Your task to perform on an android device: How big is a lion? Image 0: 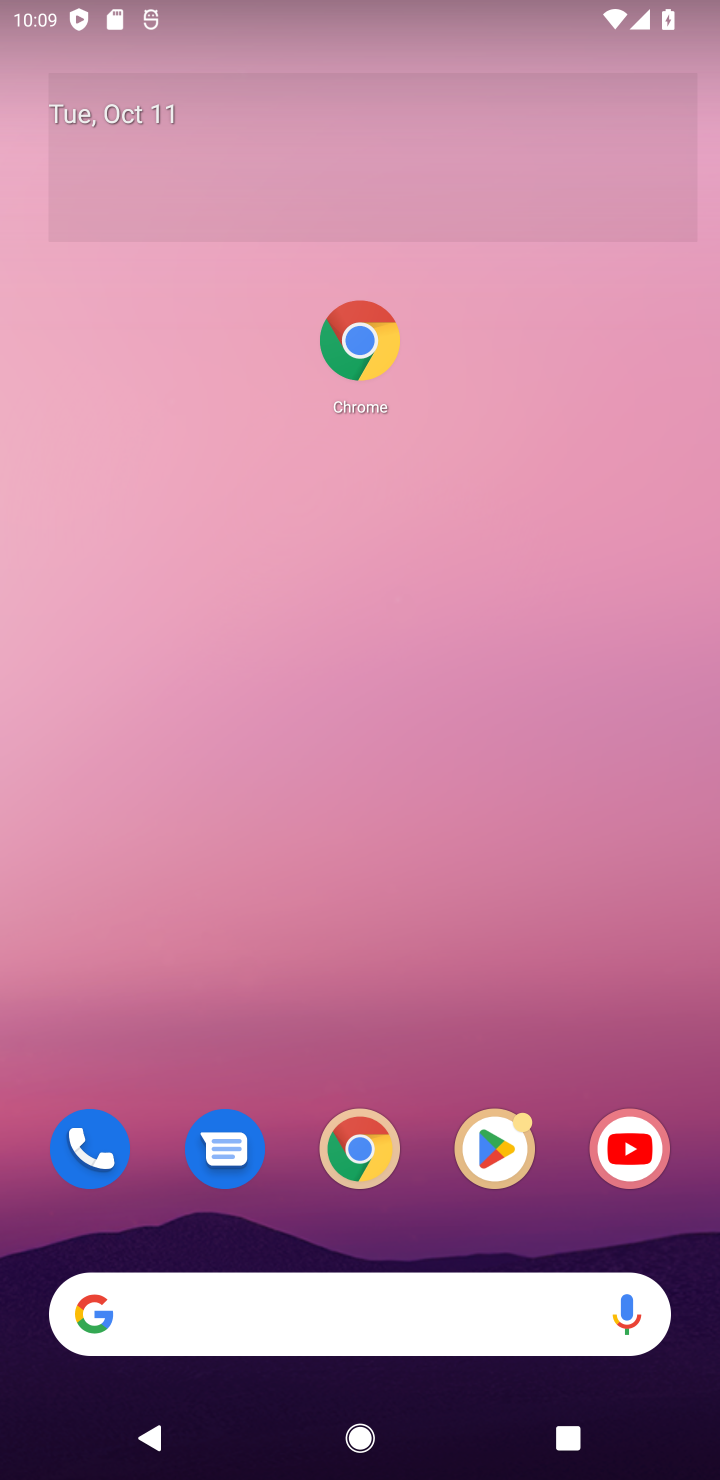
Step 0: drag from (333, 1247) to (40, 15)
Your task to perform on an android device: How big is a lion? Image 1: 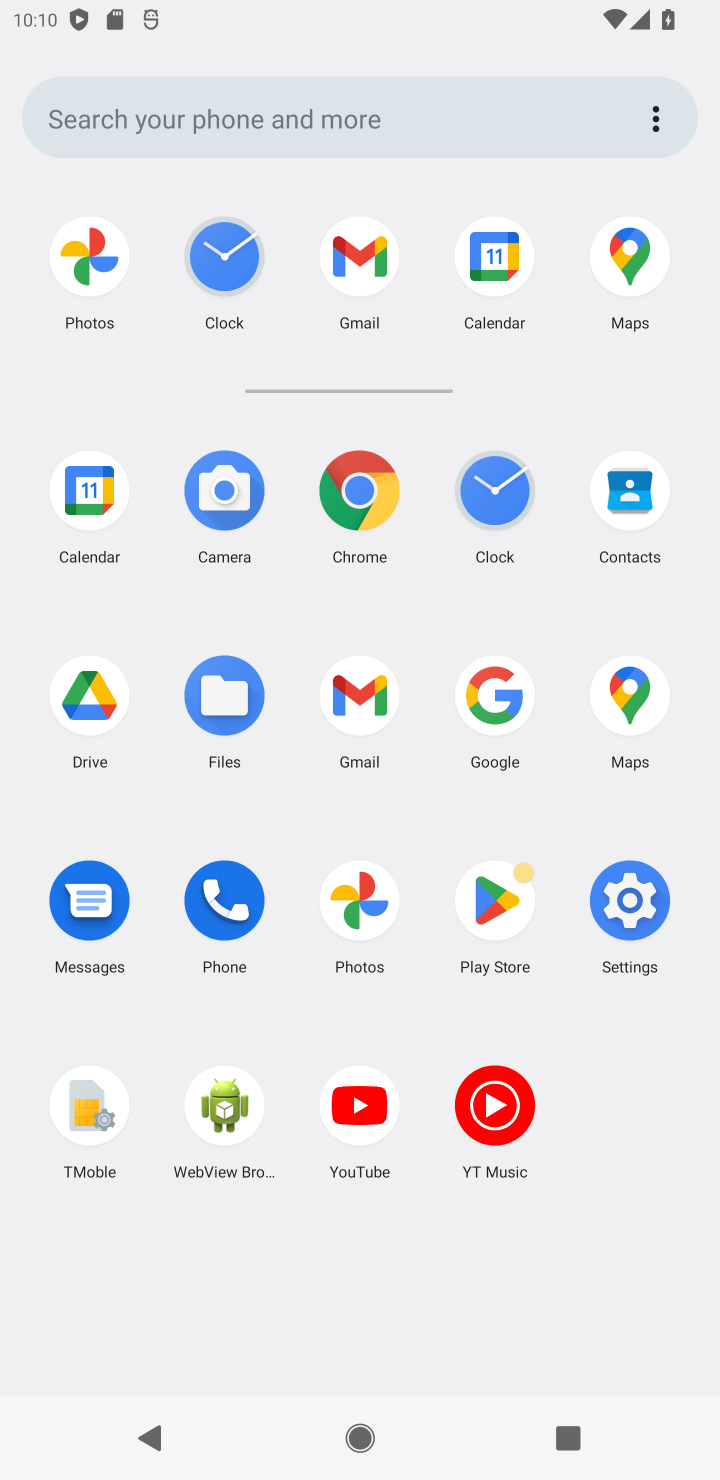
Step 1: click (358, 485)
Your task to perform on an android device: How big is a lion? Image 2: 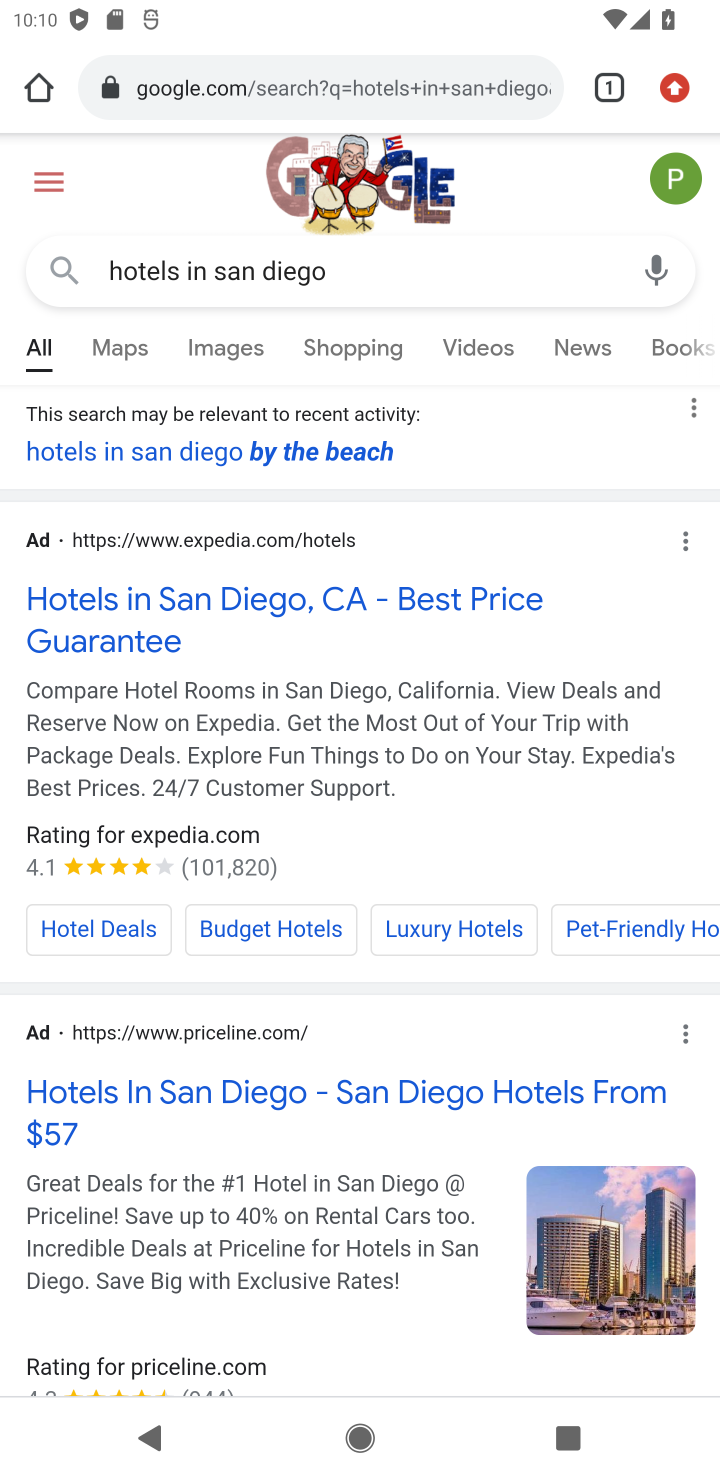
Step 2: click (215, 105)
Your task to perform on an android device: How big is a lion? Image 3: 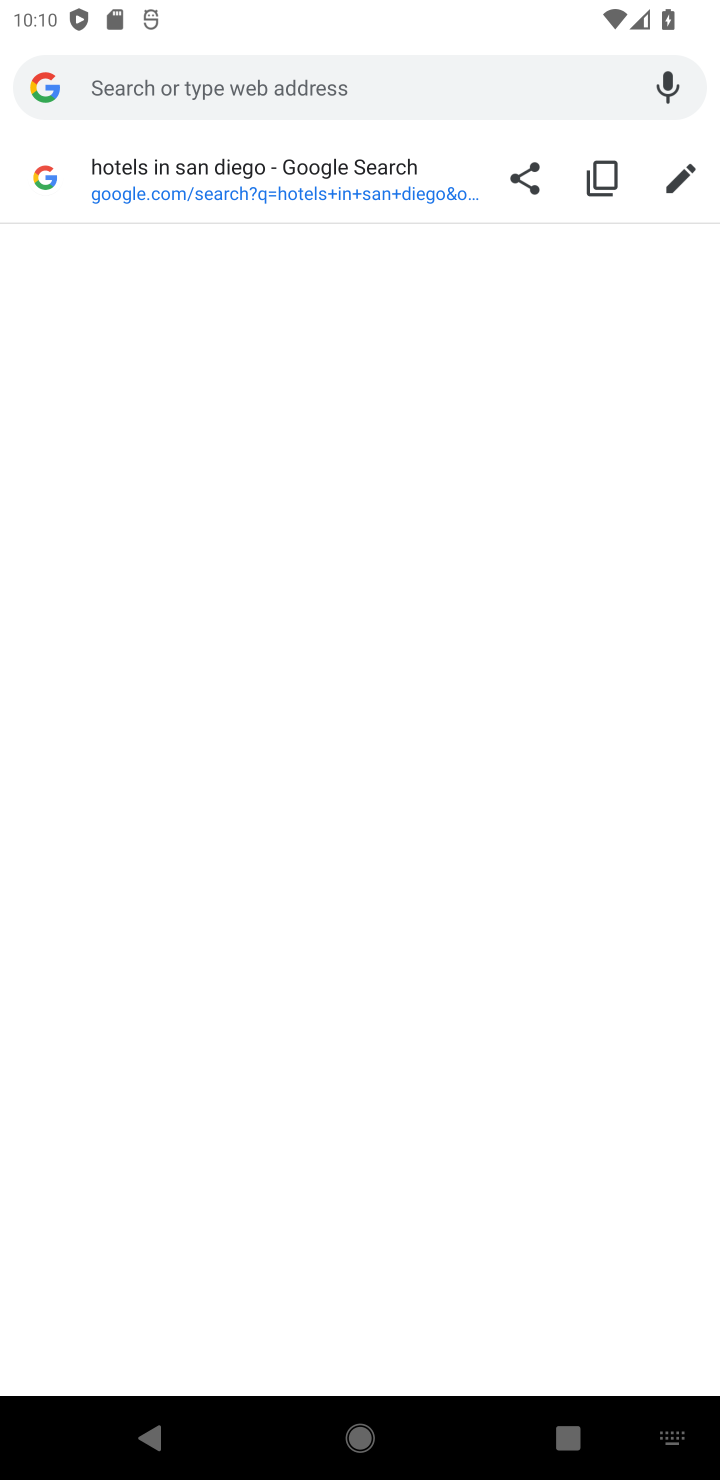
Step 3: type "How big is a lion?"
Your task to perform on an android device: How big is a lion? Image 4: 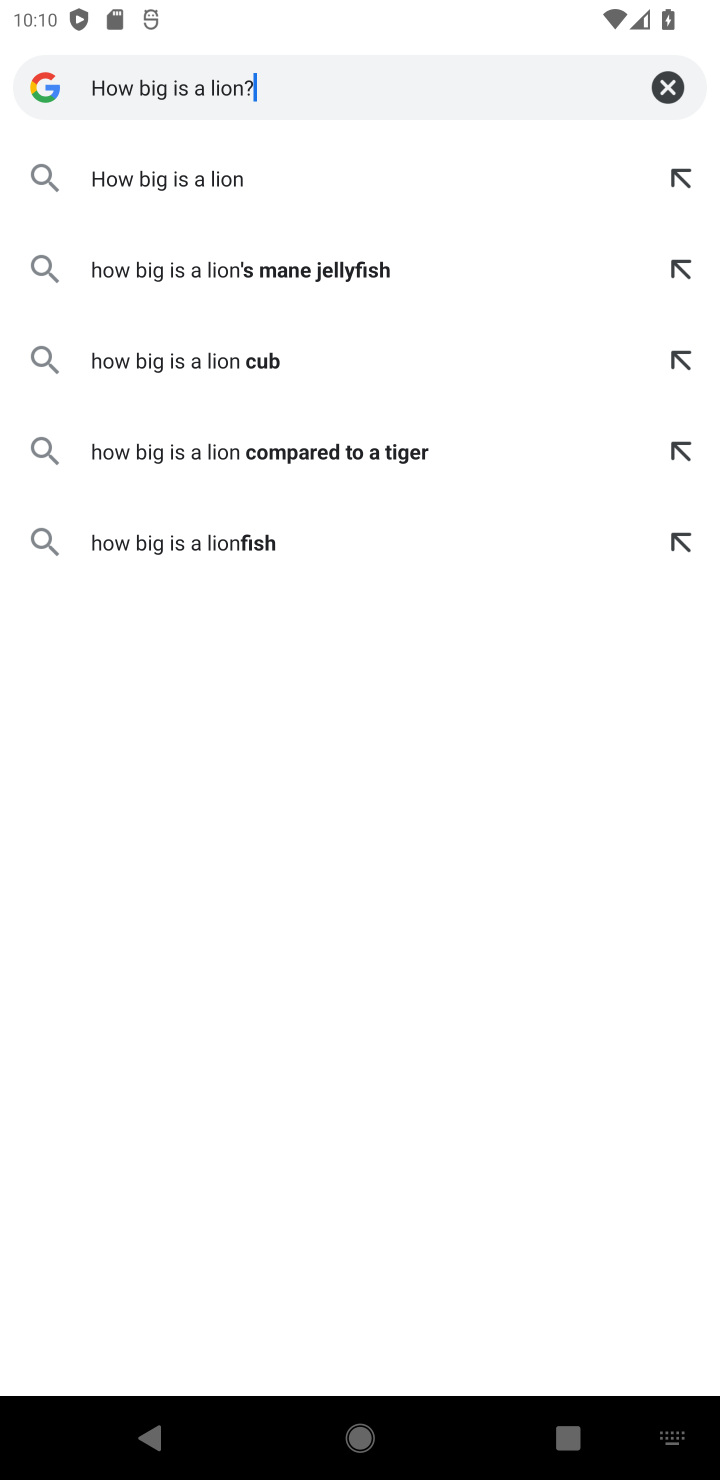
Step 4: press enter
Your task to perform on an android device: How big is a lion? Image 5: 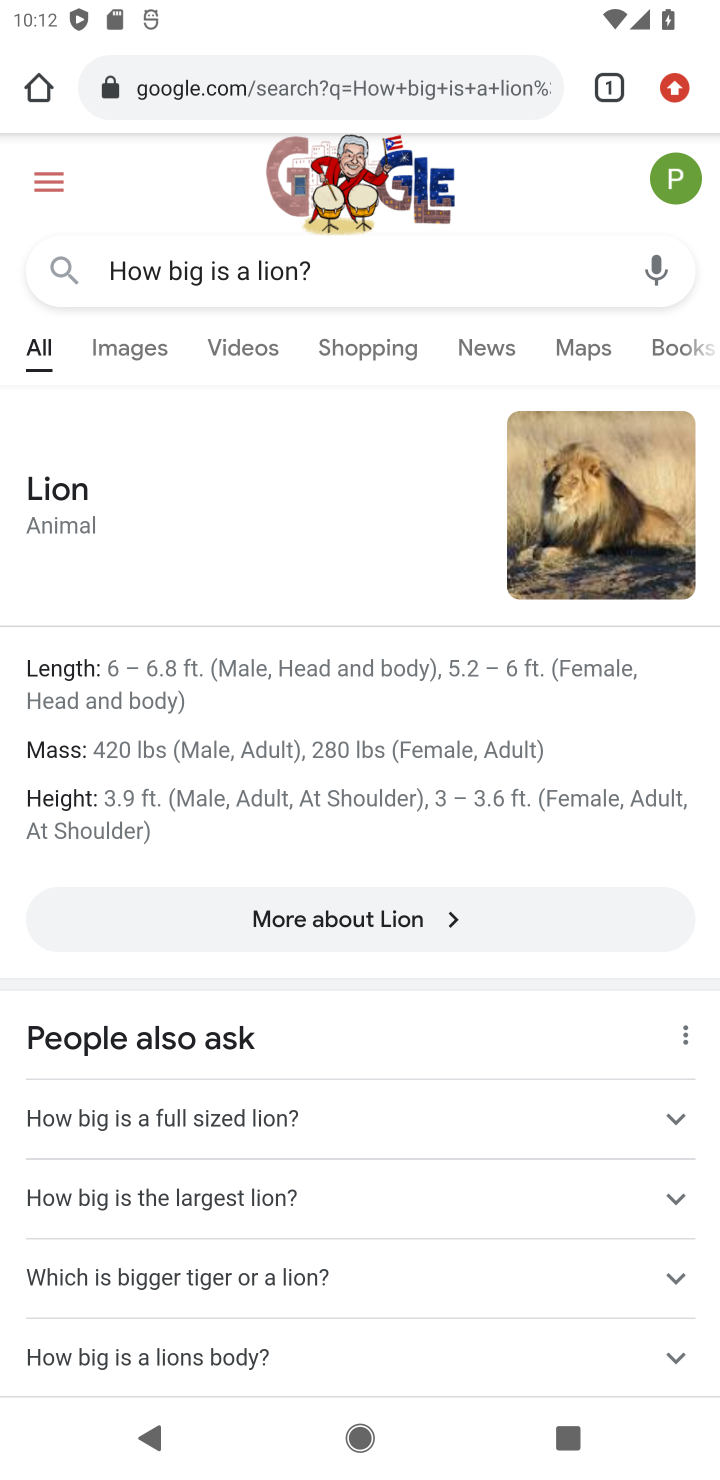
Step 5: task complete